Your task to perform on an android device: Open Maps and search for coffee Image 0: 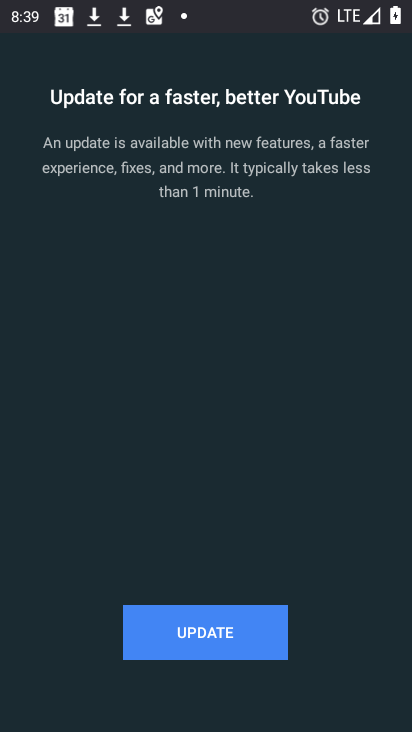
Step 0: press home button
Your task to perform on an android device: Open Maps and search for coffee Image 1: 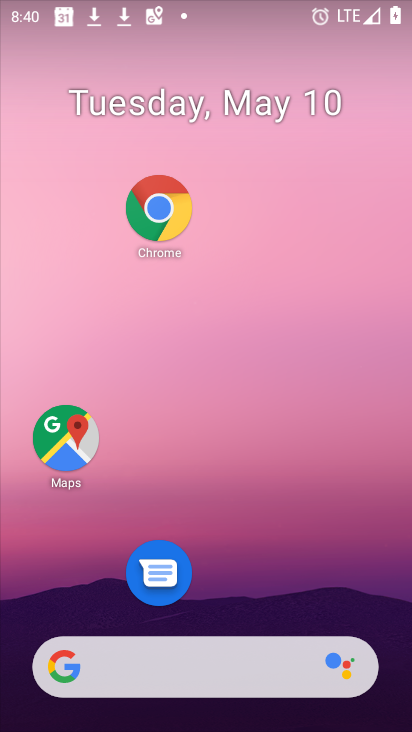
Step 1: drag from (273, 590) to (300, 231)
Your task to perform on an android device: Open Maps and search for coffee Image 2: 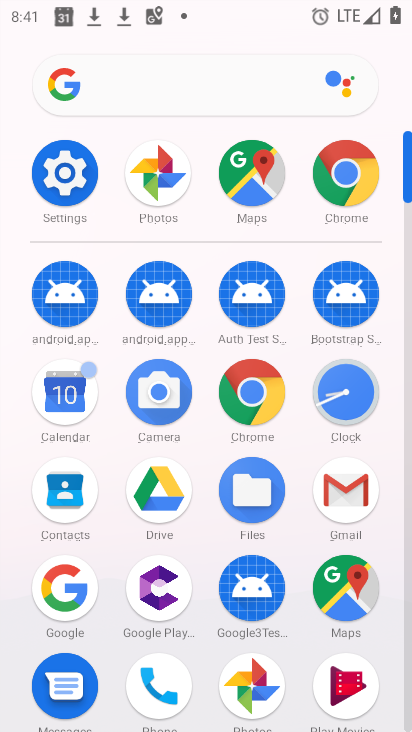
Step 2: click (260, 188)
Your task to perform on an android device: Open Maps and search for coffee Image 3: 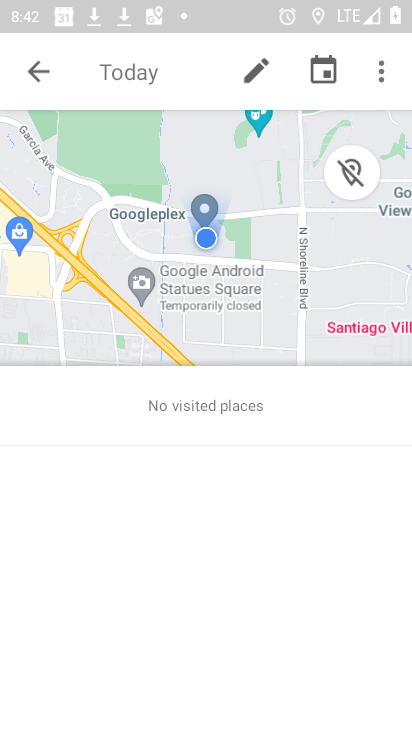
Step 3: click (40, 79)
Your task to perform on an android device: Open Maps and search for coffee Image 4: 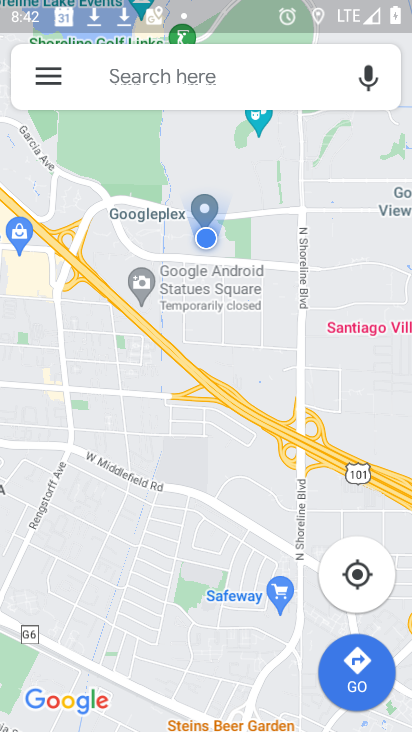
Step 4: click (203, 75)
Your task to perform on an android device: Open Maps and search for coffee Image 5: 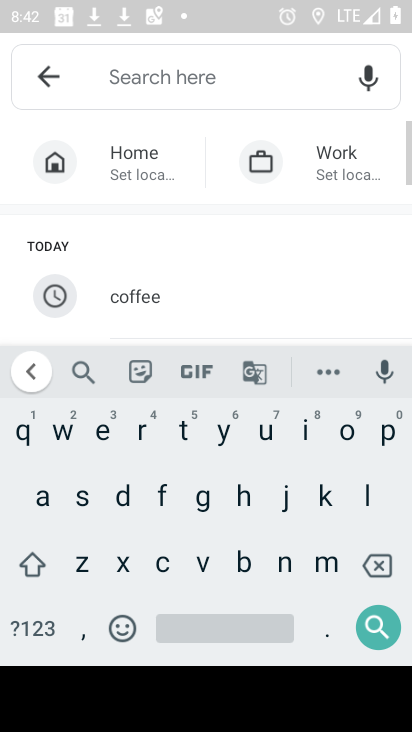
Step 5: click (167, 565)
Your task to perform on an android device: Open Maps and search for coffee Image 6: 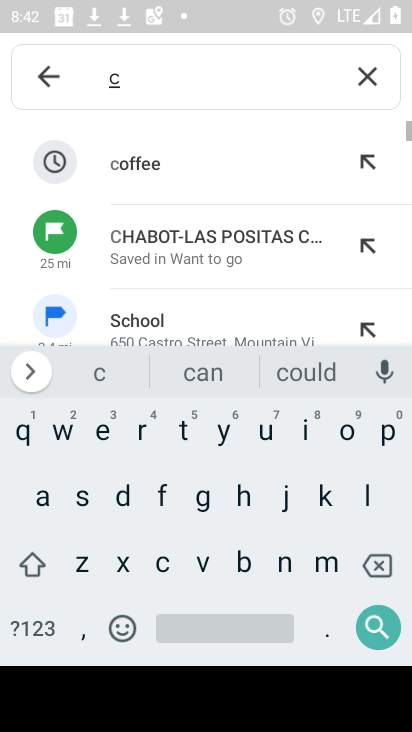
Step 6: click (181, 174)
Your task to perform on an android device: Open Maps and search for coffee Image 7: 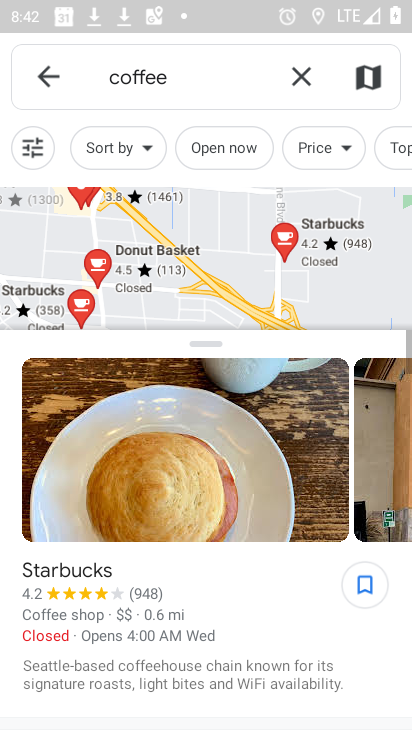
Step 7: task complete